Your task to perform on an android device: check google app version Image 0: 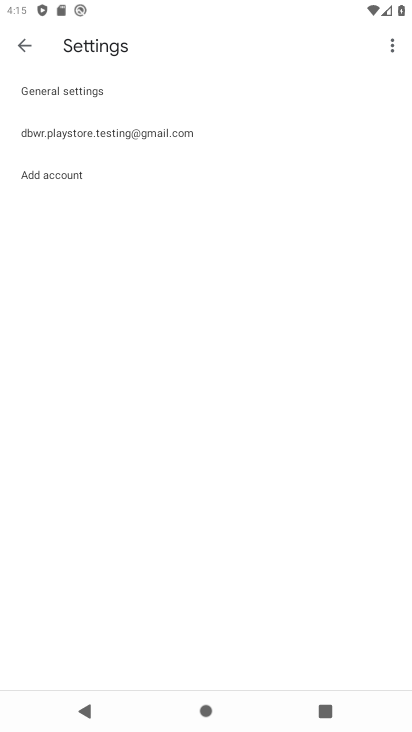
Step 0: press home button
Your task to perform on an android device: check google app version Image 1: 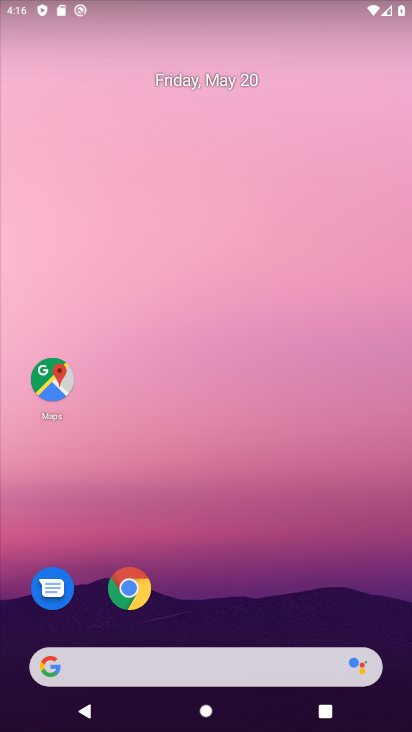
Step 1: drag from (263, 612) to (225, 42)
Your task to perform on an android device: check google app version Image 2: 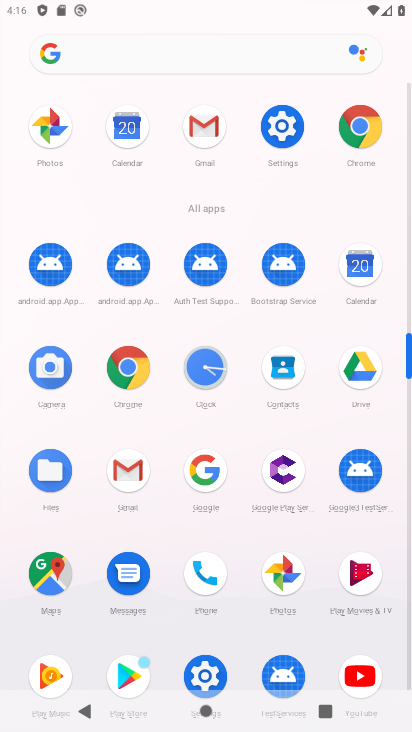
Step 2: drag from (247, 339) to (251, 52)
Your task to perform on an android device: check google app version Image 3: 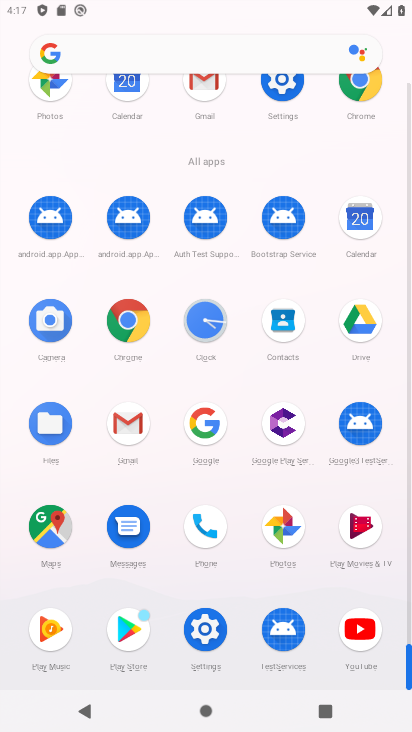
Step 3: click (200, 421)
Your task to perform on an android device: check google app version Image 4: 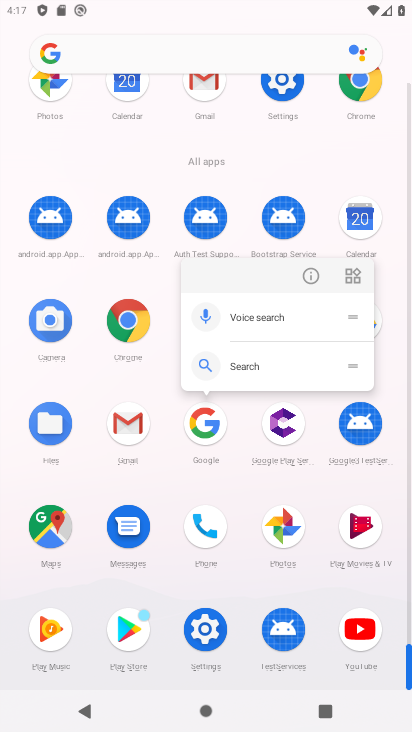
Step 4: click (311, 272)
Your task to perform on an android device: check google app version Image 5: 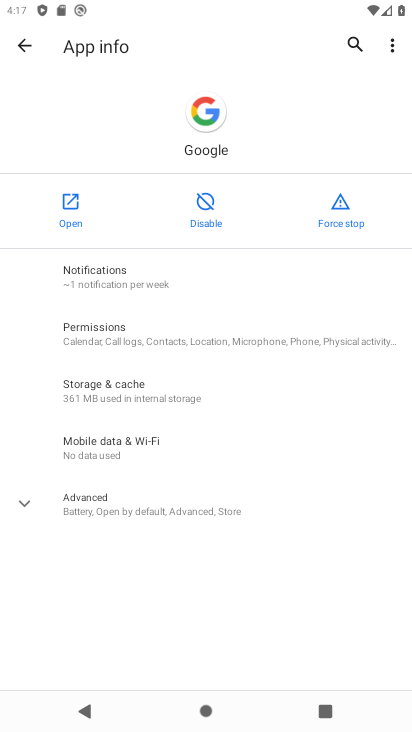
Step 5: click (97, 502)
Your task to perform on an android device: check google app version Image 6: 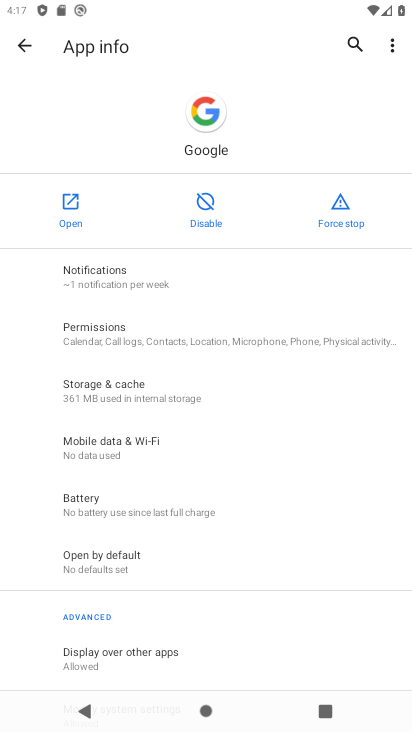
Step 6: task complete